Your task to perform on an android device: Find coffee shops on Maps Image 0: 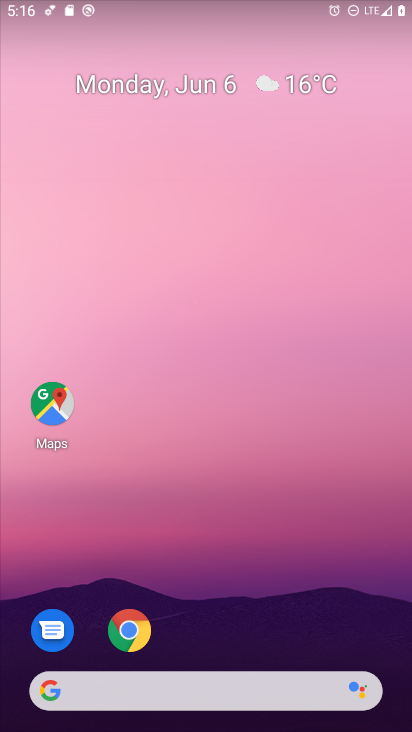
Step 0: press home button
Your task to perform on an android device: Find coffee shops on Maps Image 1: 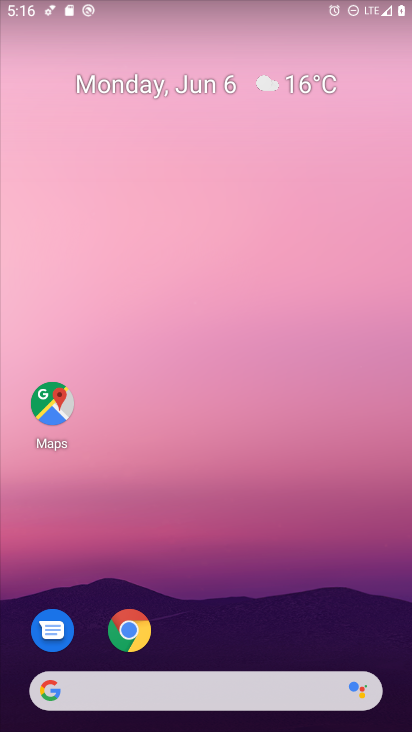
Step 1: click (47, 408)
Your task to perform on an android device: Find coffee shops on Maps Image 2: 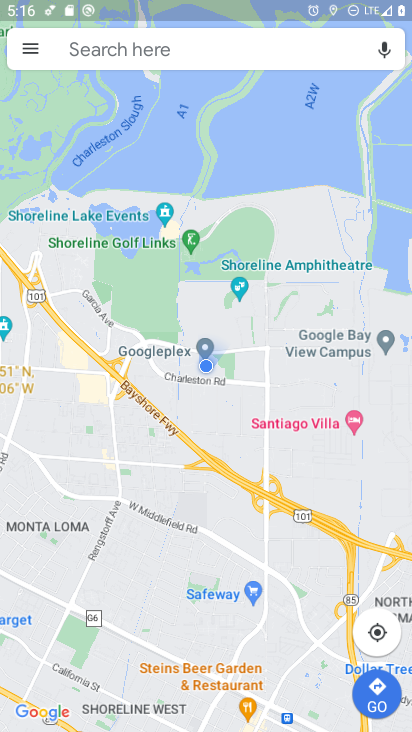
Step 2: click (195, 48)
Your task to perform on an android device: Find coffee shops on Maps Image 3: 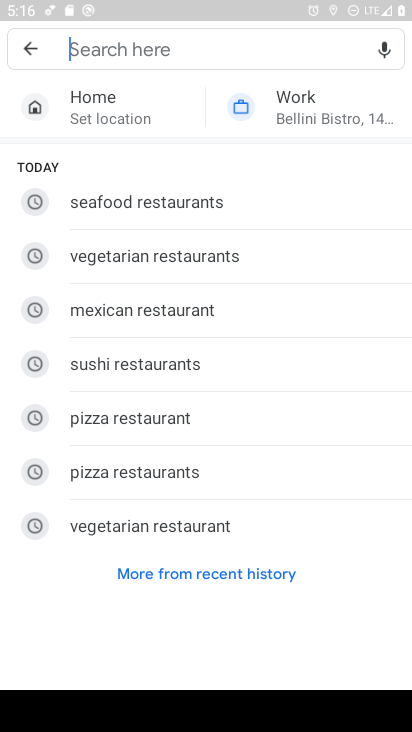
Step 3: type "coffee"
Your task to perform on an android device: Find coffee shops on Maps Image 4: 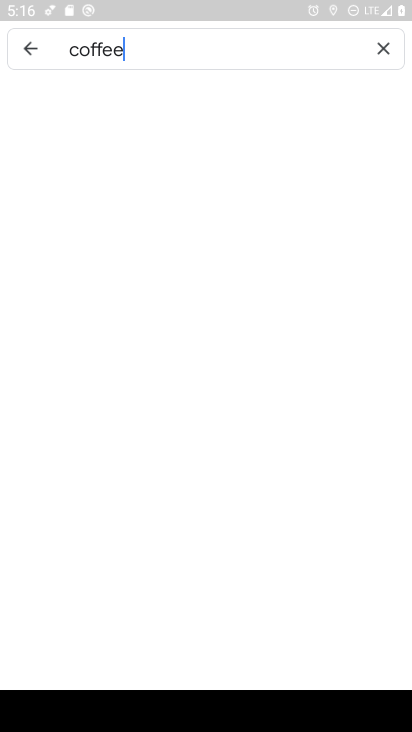
Step 4: type ""
Your task to perform on an android device: Find coffee shops on Maps Image 5: 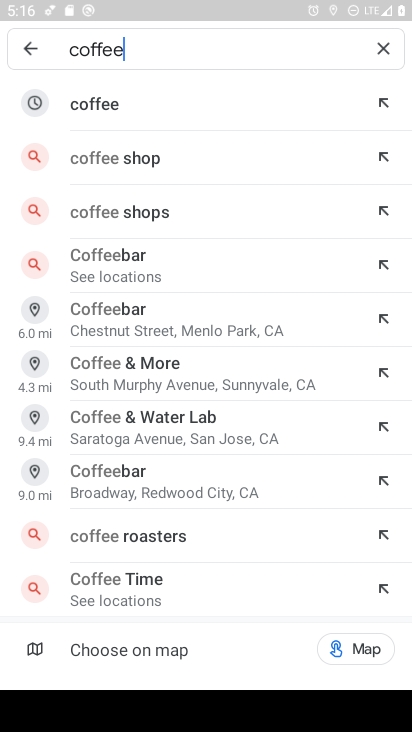
Step 5: click (283, 111)
Your task to perform on an android device: Find coffee shops on Maps Image 6: 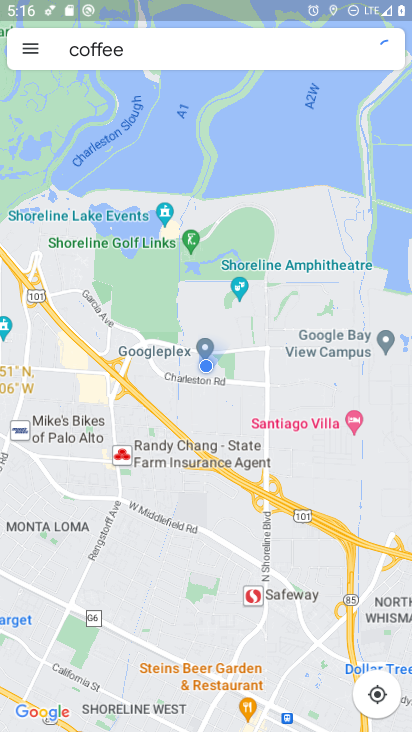
Step 6: task complete